Your task to perform on an android device: Open Youtube and go to the subscriptions tab Image 0: 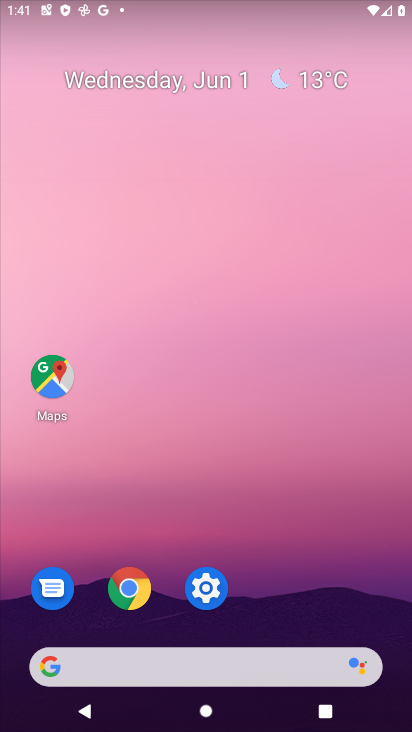
Step 0: press home button
Your task to perform on an android device: Open Youtube and go to the subscriptions tab Image 1: 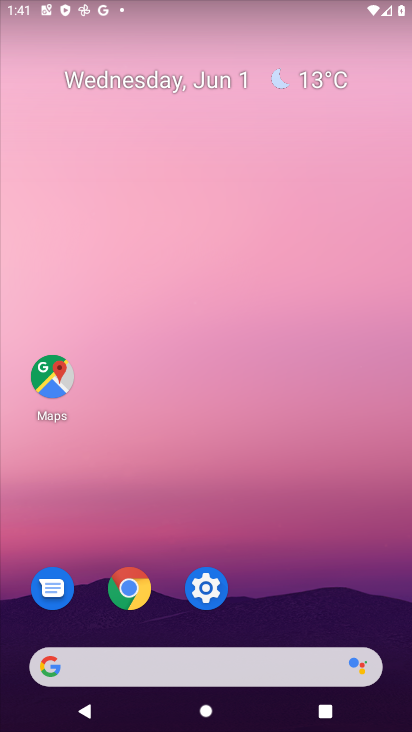
Step 1: drag from (272, 686) to (224, 185)
Your task to perform on an android device: Open Youtube and go to the subscriptions tab Image 2: 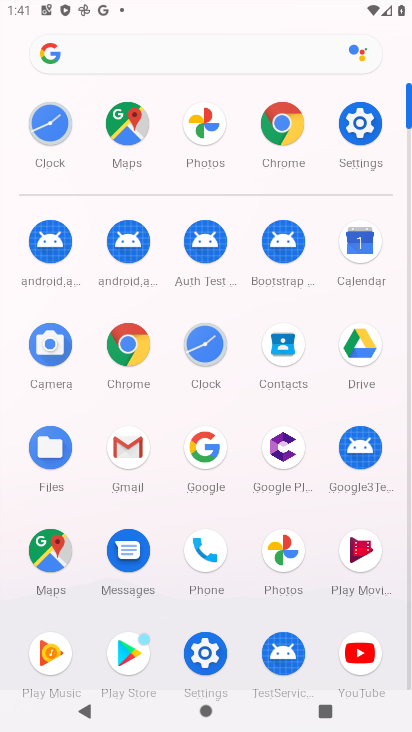
Step 2: click (353, 639)
Your task to perform on an android device: Open Youtube and go to the subscriptions tab Image 3: 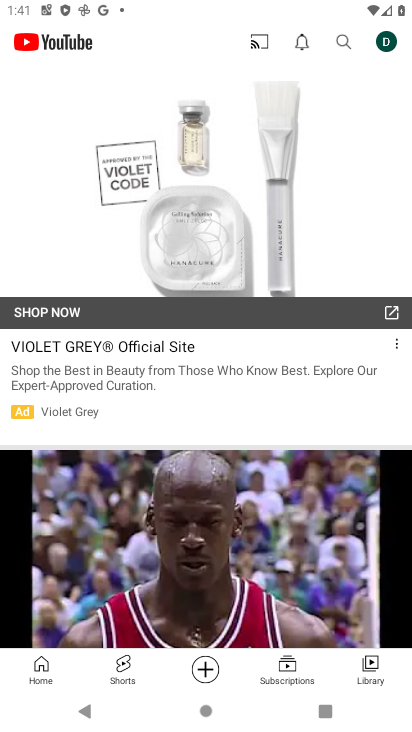
Step 3: click (286, 670)
Your task to perform on an android device: Open Youtube and go to the subscriptions tab Image 4: 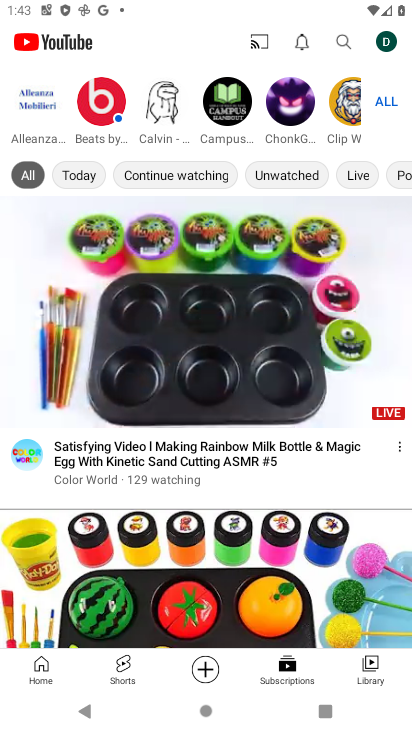
Step 4: task complete